Your task to perform on an android device: check google app version Image 0: 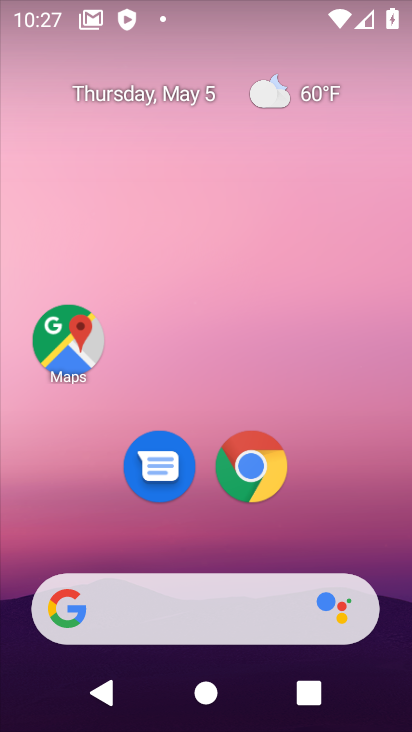
Step 0: drag from (195, 577) to (269, 179)
Your task to perform on an android device: check google app version Image 1: 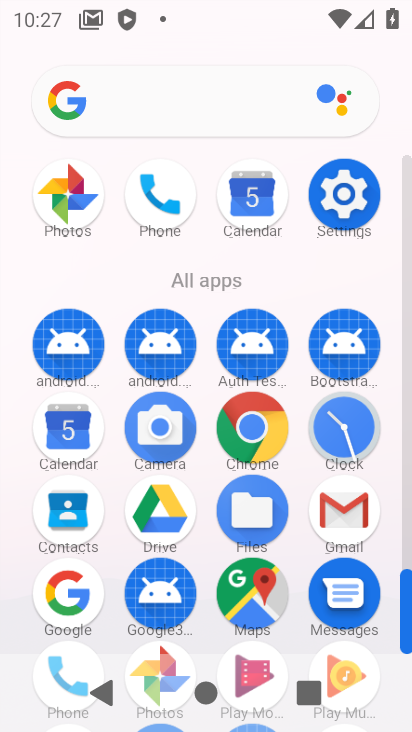
Step 1: click (78, 602)
Your task to perform on an android device: check google app version Image 2: 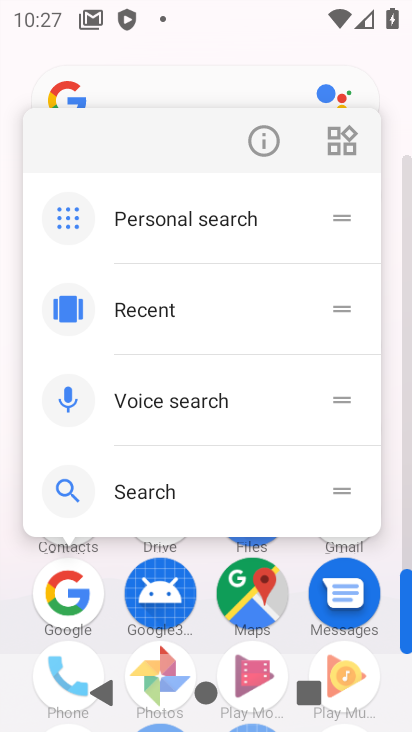
Step 2: click (259, 137)
Your task to perform on an android device: check google app version Image 3: 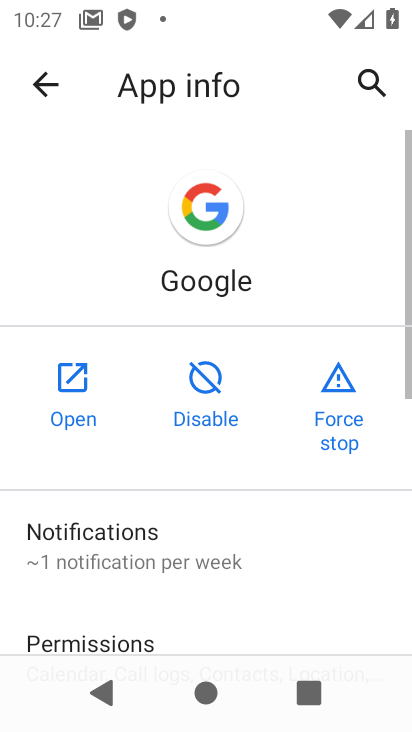
Step 3: drag from (233, 634) to (307, 159)
Your task to perform on an android device: check google app version Image 4: 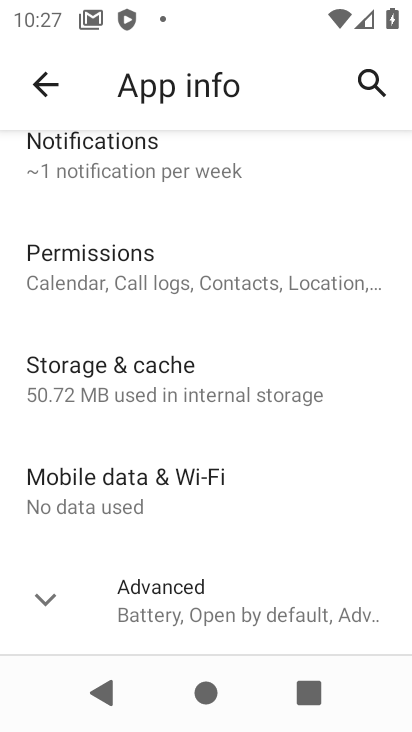
Step 4: drag from (247, 515) to (333, 161)
Your task to perform on an android device: check google app version Image 5: 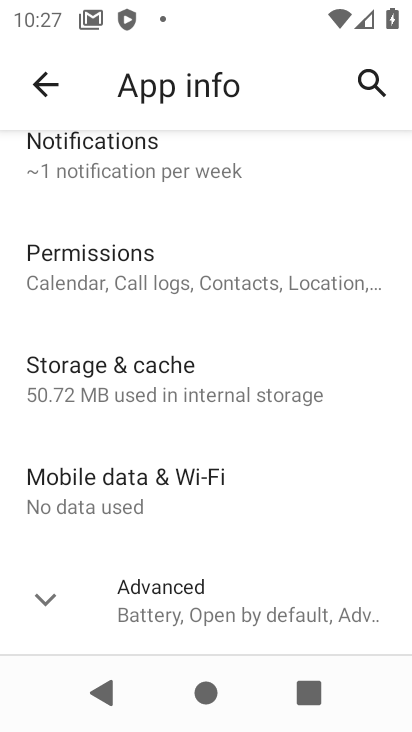
Step 5: click (219, 612)
Your task to perform on an android device: check google app version Image 6: 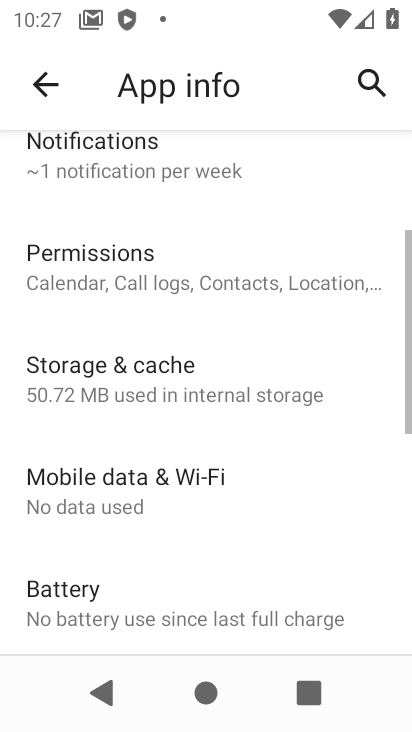
Step 6: task complete